Your task to perform on an android device: Open Google Chrome and open the bookmarks view Image 0: 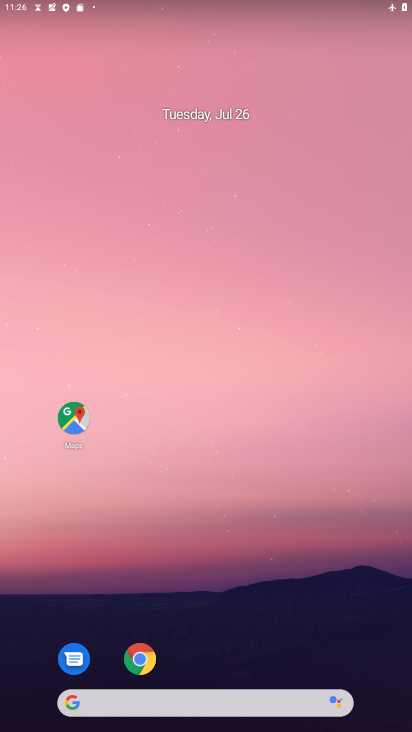
Step 0: click (142, 659)
Your task to perform on an android device: Open Google Chrome and open the bookmarks view Image 1: 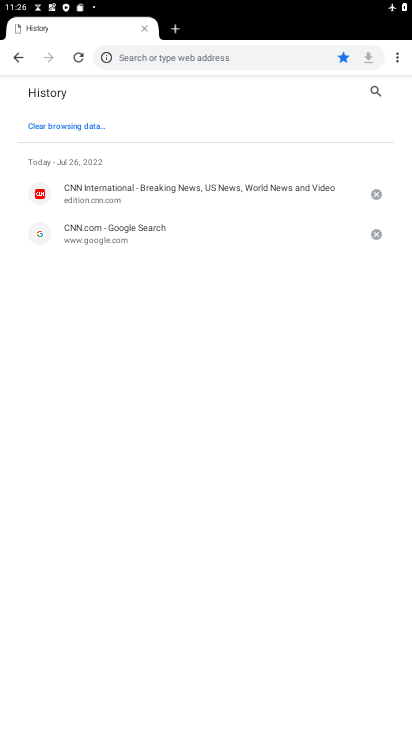
Step 1: click (397, 57)
Your task to perform on an android device: Open Google Chrome and open the bookmarks view Image 2: 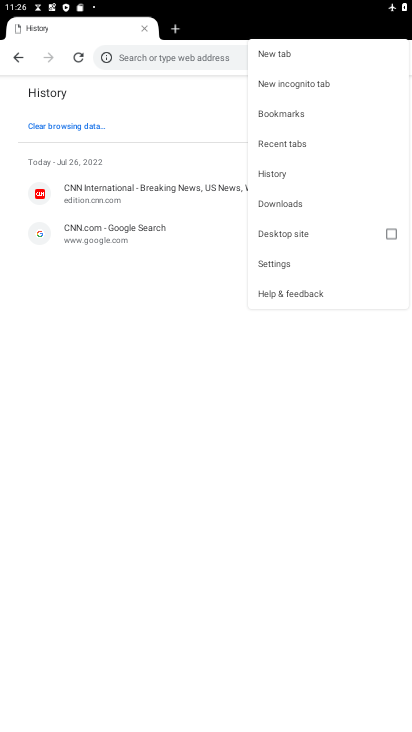
Step 2: click (296, 117)
Your task to perform on an android device: Open Google Chrome and open the bookmarks view Image 3: 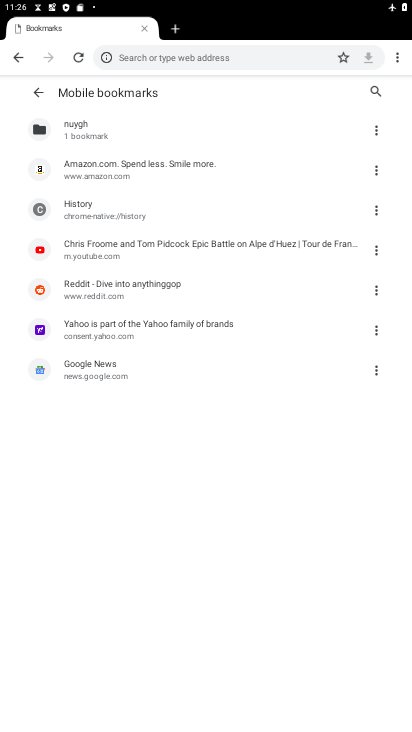
Step 3: task complete